Your task to perform on an android device: Set the phone to "Do not disturb". Image 0: 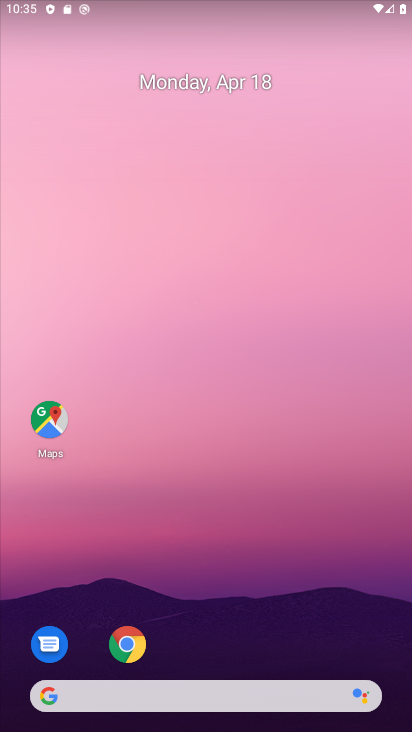
Step 0: drag from (176, 653) to (238, 15)
Your task to perform on an android device: Set the phone to "Do not disturb". Image 1: 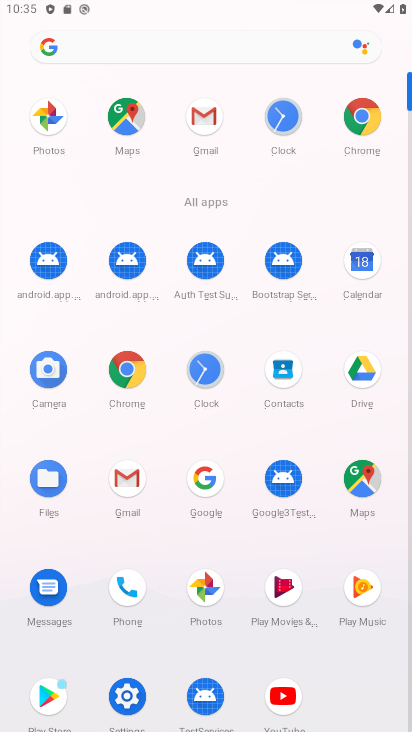
Step 1: click (129, 707)
Your task to perform on an android device: Set the phone to "Do not disturb". Image 2: 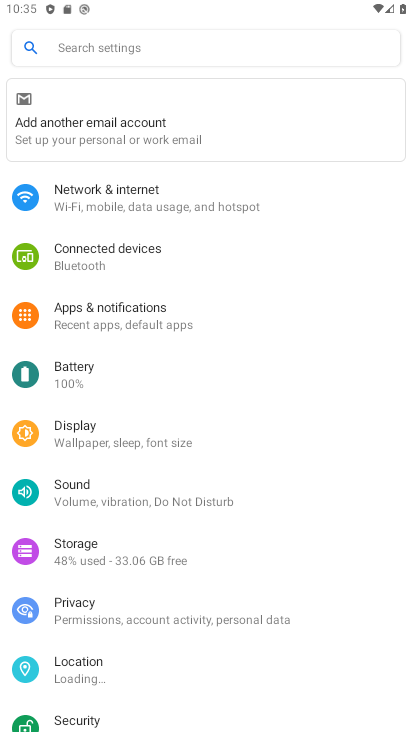
Step 2: click (141, 496)
Your task to perform on an android device: Set the phone to "Do not disturb". Image 3: 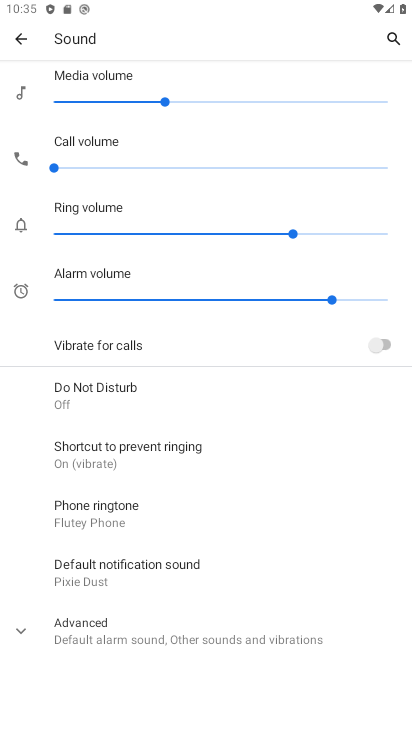
Step 3: click (109, 391)
Your task to perform on an android device: Set the phone to "Do not disturb". Image 4: 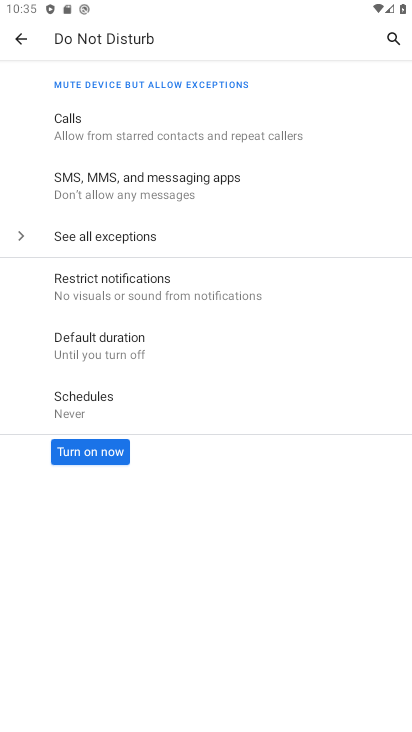
Step 4: click (95, 456)
Your task to perform on an android device: Set the phone to "Do not disturb". Image 5: 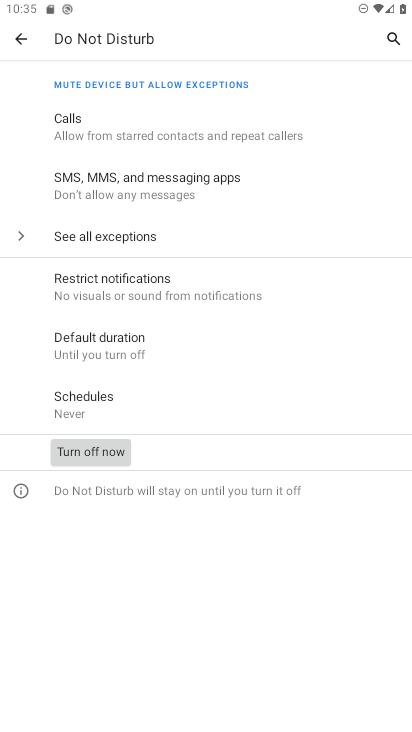
Step 5: task complete